Your task to perform on an android device: Open settings on Google Maps Image 0: 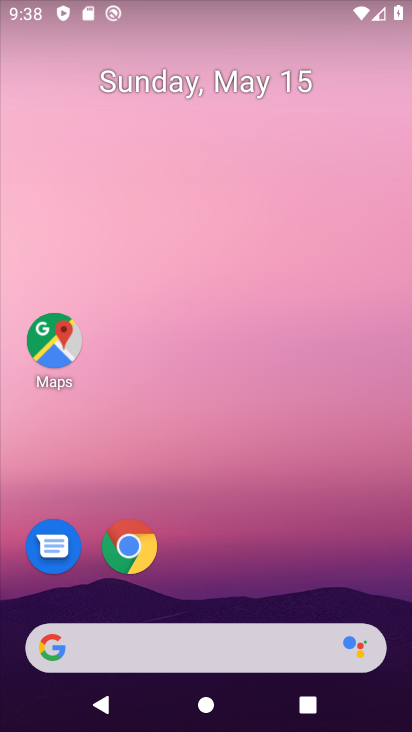
Step 0: click (73, 333)
Your task to perform on an android device: Open settings on Google Maps Image 1: 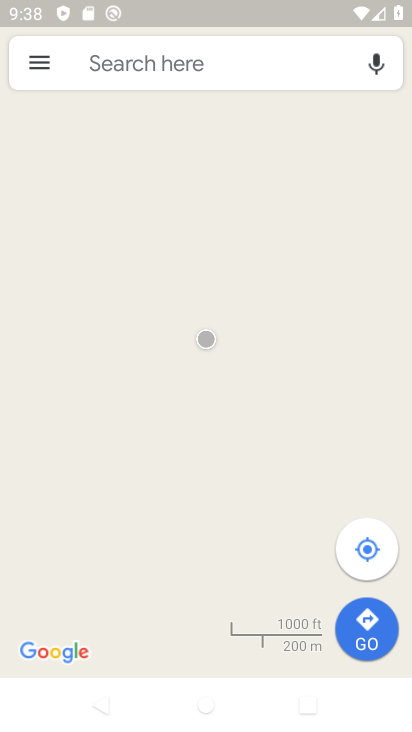
Step 1: click (36, 64)
Your task to perform on an android device: Open settings on Google Maps Image 2: 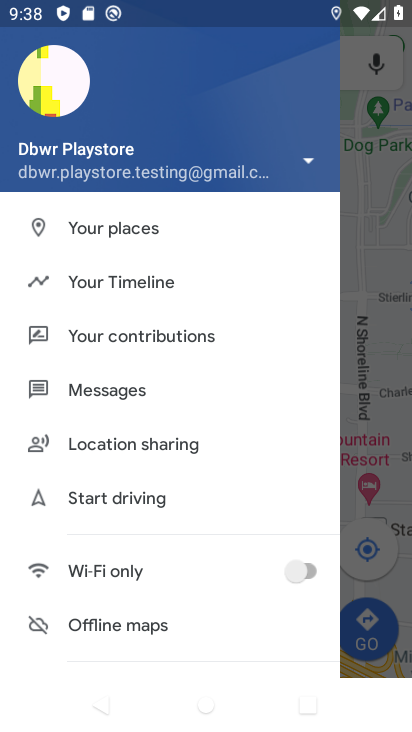
Step 2: drag from (135, 568) to (93, 4)
Your task to perform on an android device: Open settings on Google Maps Image 3: 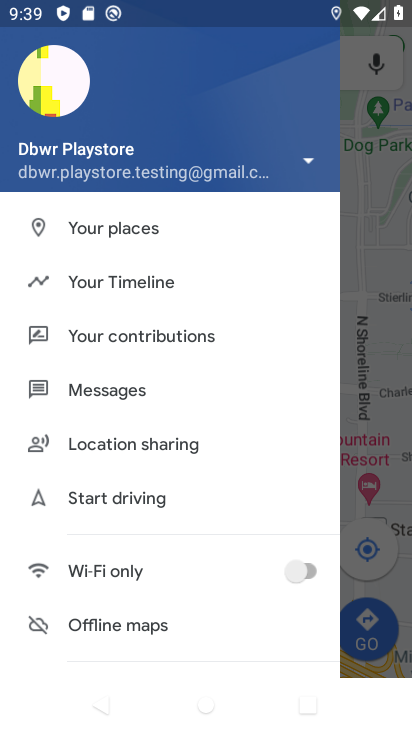
Step 3: drag from (154, 626) to (84, 142)
Your task to perform on an android device: Open settings on Google Maps Image 4: 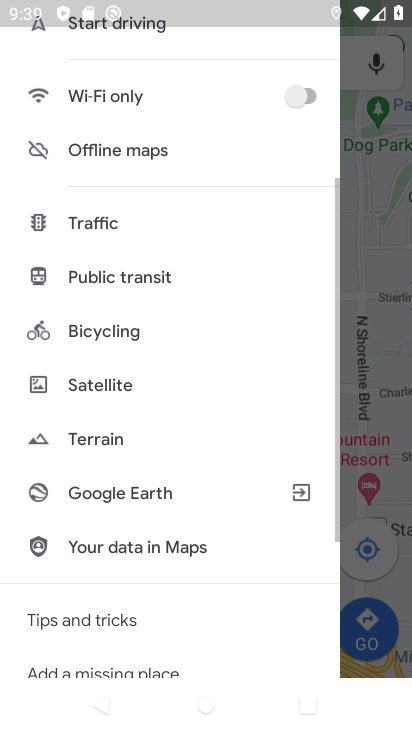
Step 4: drag from (203, 609) to (107, 151)
Your task to perform on an android device: Open settings on Google Maps Image 5: 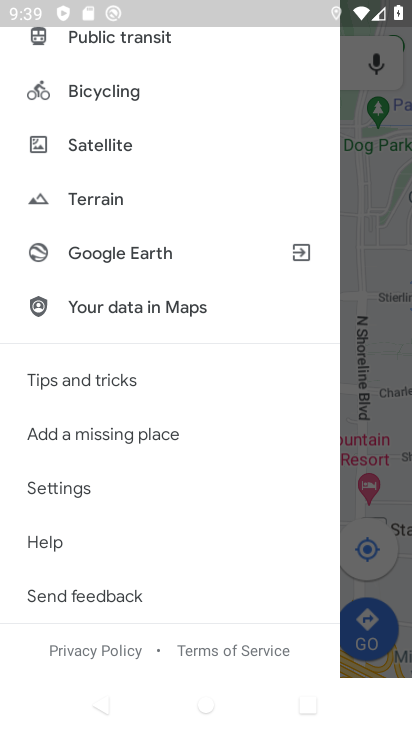
Step 5: click (94, 486)
Your task to perform on an android device: Open settings on Google Maps Image 6: 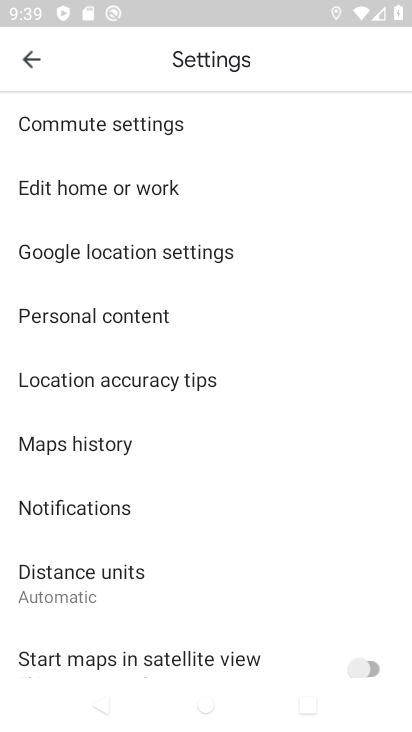
Step 6: task complete